Your task to perform on an android device: check data usage Image 0: 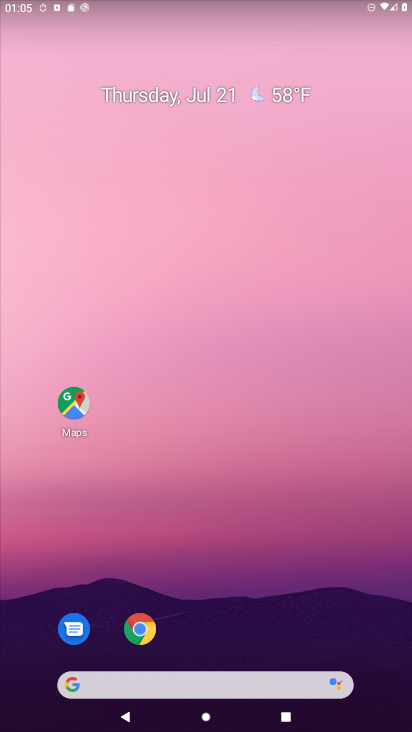
Step 0: drag from (205, 616) to (195, 170)
Your task to perform on an android device: check data usage Image 1: 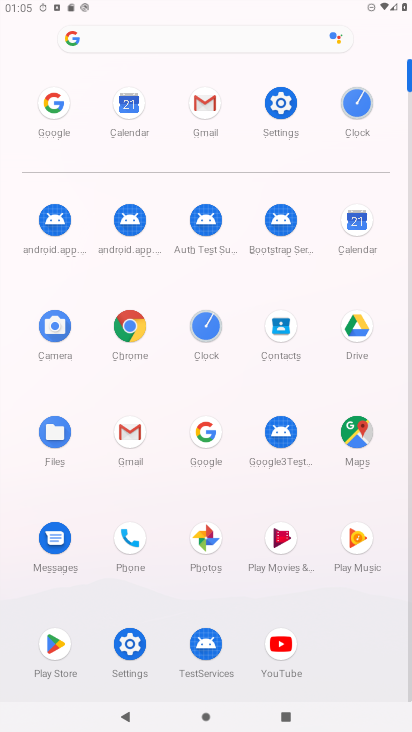
Step 1: click (268, 119)
Your task to perform on an android device: check data usage Image 2: 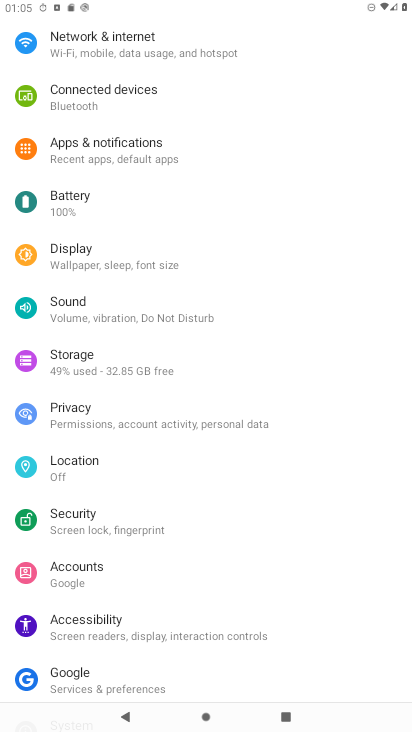
Step 2: click (143, 58)
Your task to perform on an android device: check data usage Image 3: 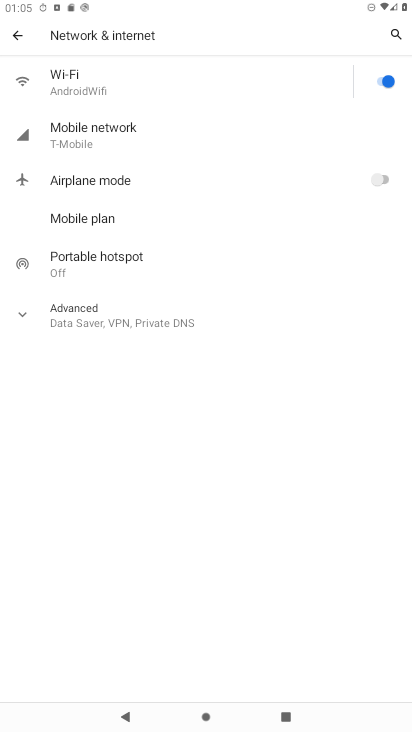
Step 3: click (109, 134)
Your task to perform on an android device: check data usage Image 4: 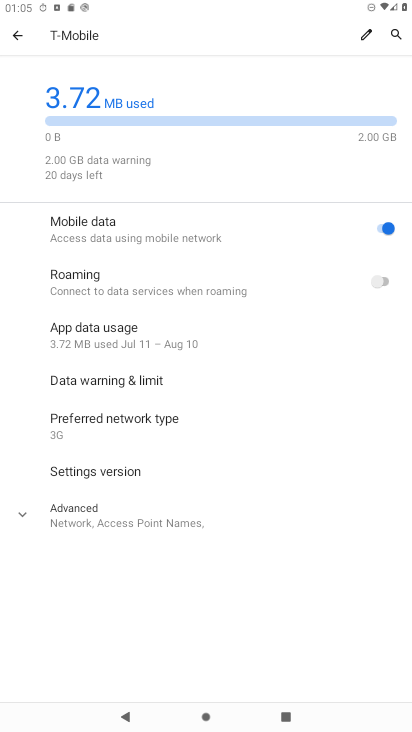
Step 4: task complete